Your task to perform on an android device: Open calendar and show me the first week of next month Image 0: 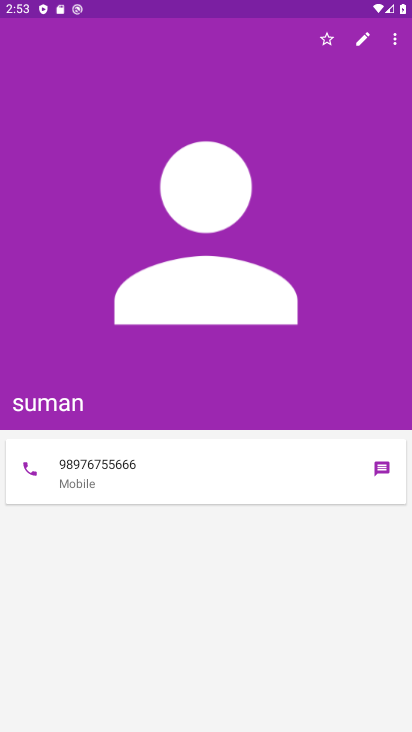
Step 0: press home button
Your task to perform on an android device: Open calendar and show me the first week of next month Image 1: 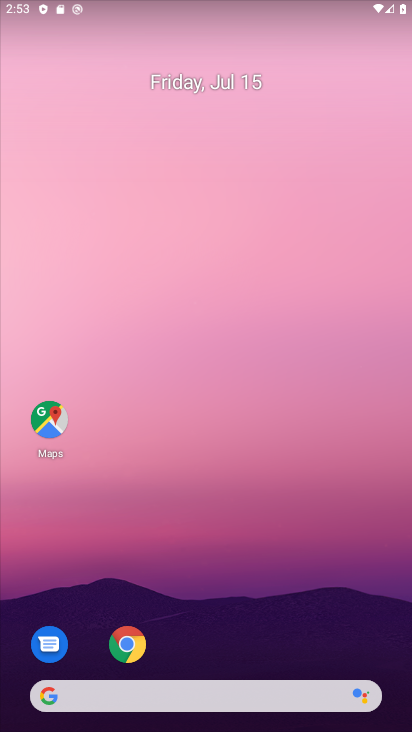
Step 1: drag from (262, 696) to (200, 4)
Your task to perform on an android device: Open calendar and show me the first week of next month Image 2: 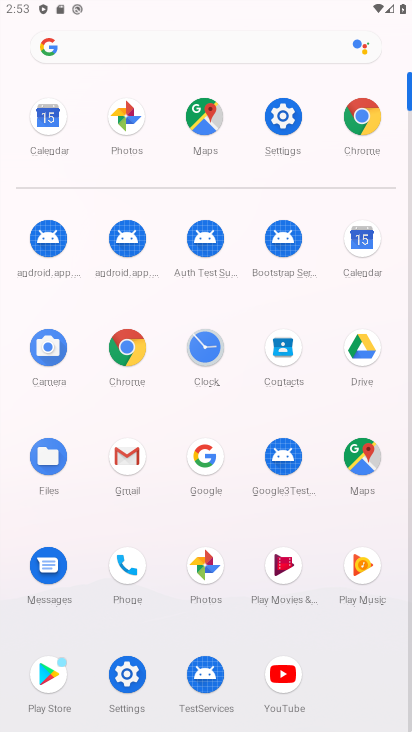
Step 2: click (360, 248)
Your task to perform on an android device: Open calendar and show me the first week of next month Image 3: 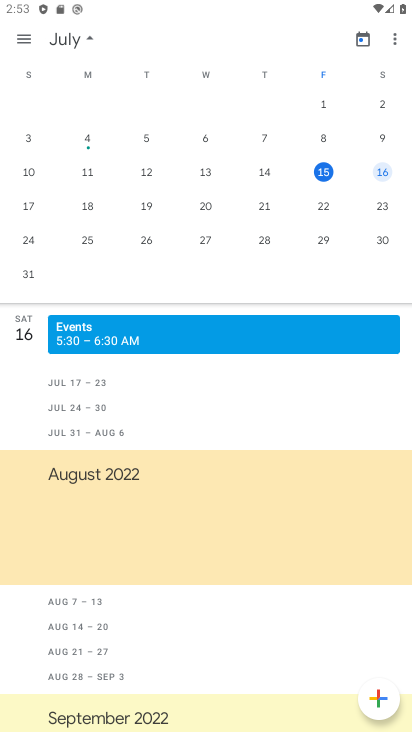
Step 3: click (91, 36)
Your task to perform on an android device: Open calendar and show me the first week of next month Image 4: 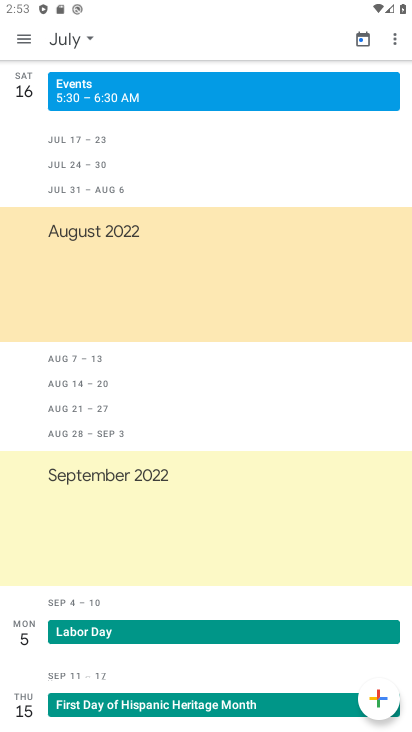
Step 4: click (86, 38)
Your task to perform on an android device: Open calendar and show me the first week of next month Image 5: 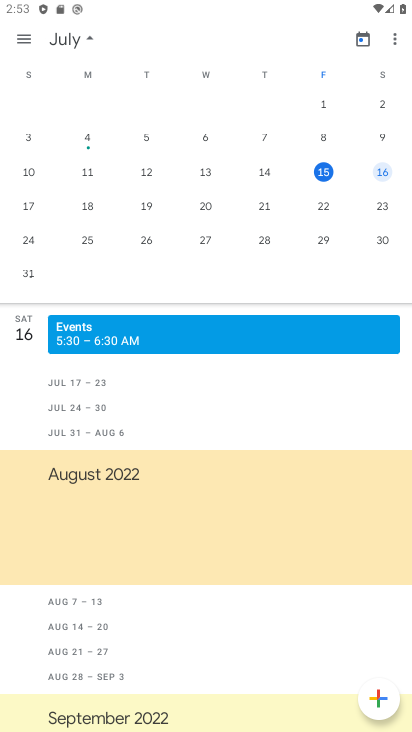
Step 5: drag from (342, 200) to (7, 203)
Your task to perform on an android device: Open calendar and show me the first week of next month Image 6: 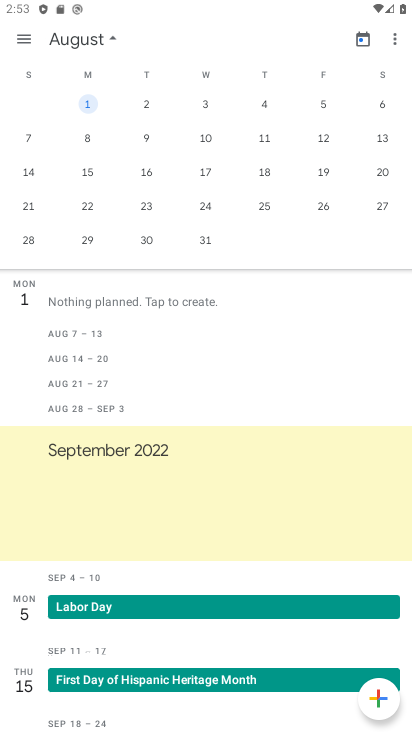
Step 6: click (259, 99)
Your task to perform on an android device: Open calendar and show me the first week of next month Image 7: 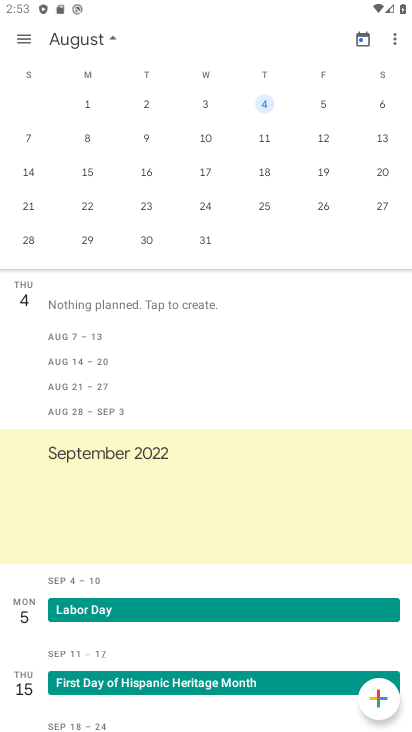
Step 7: click (28, 37)
Your task to perform on an android device: Open calendar and show me the first week of next month Image 8: 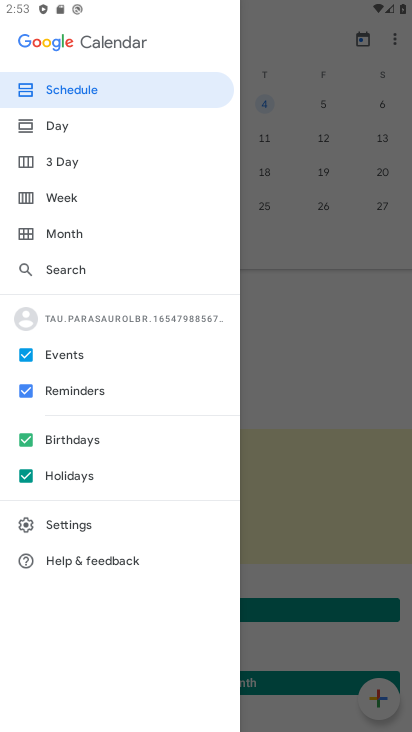
Step 8: click (76, 195)
Your task to perform on an android device: Open calendar and show me the first week of next month Image 9: 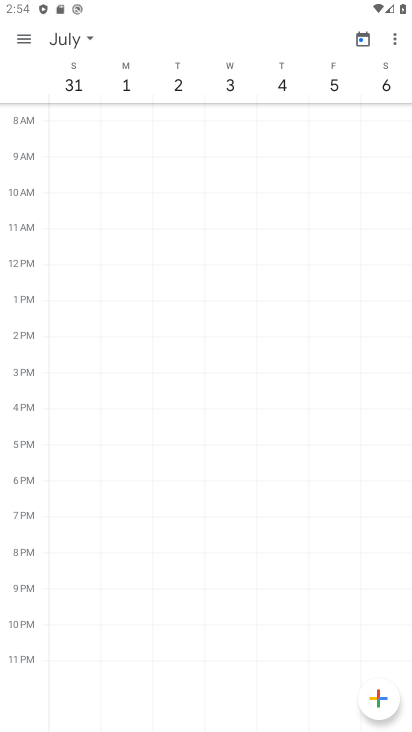
Step 9: task complete